Your task to perform on an android device: find photos in the google photos app Image 0: 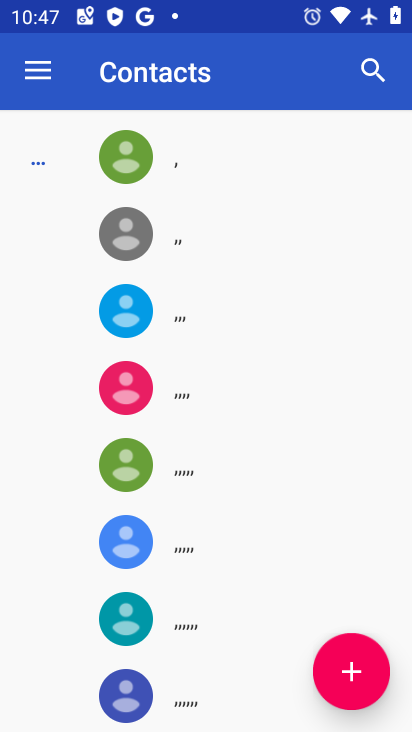
Step 0: press home button
Your task to perform on an android device: find photos in the google photos app Image 1: 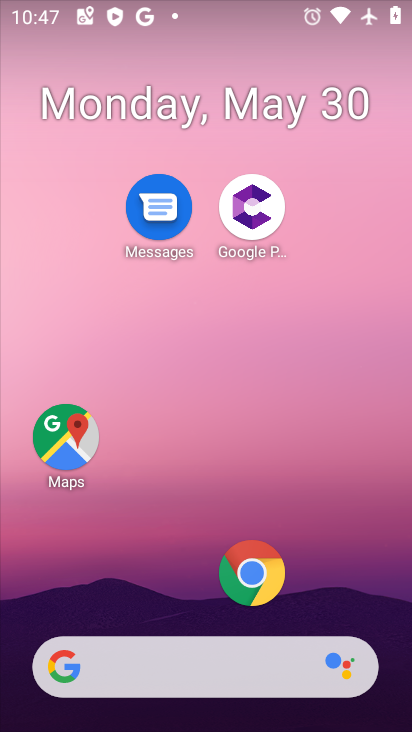
Step 1: drag from (154, 601) to (299, 123)
Your task to perform on an android device: find photos in the google photos app Image 2: 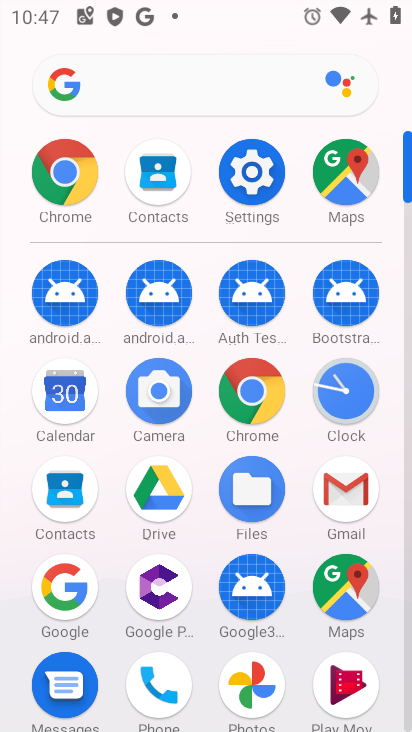
Step 2: click (249, 680)
Your task to perform on an android device: find photos in the google photos app Image 3: 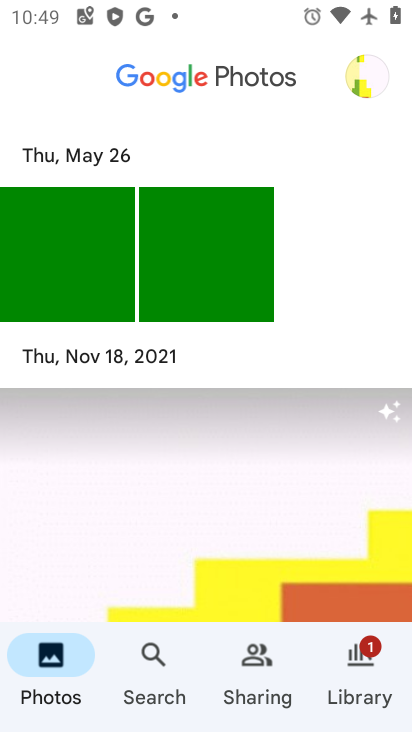
Step 3: task complete